Your task to perform on an android device: turn off translation in the chrome app Image 0: 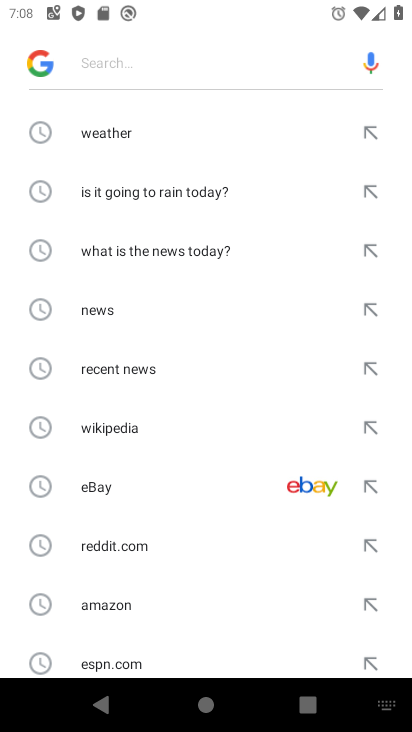
Step 0: press home button
Your task to perform on an android device: turn off translation in the chrome app Image 1: 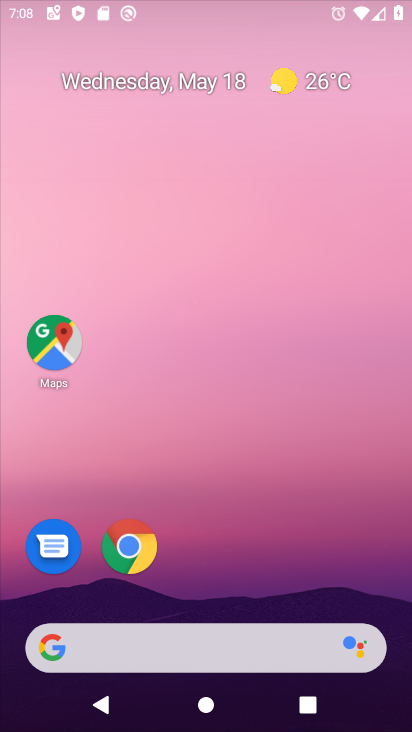
Step 1: drag from (393, 643) to (261, 46)
Your task to perform on an android device: turn off translation in the chrome app Image 2: 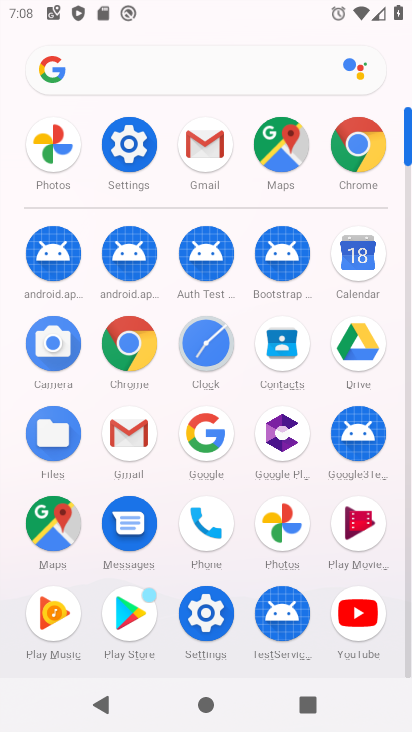
Step 2: click (368, 137)
Your task to perform on an android device: turn off translation in the chrome app Image 3: 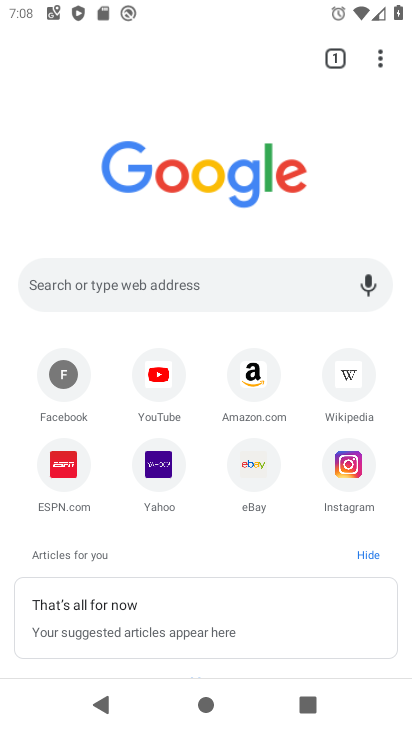
Step 3: click (385, 50)
Your task to perform on an android device: turn off translation in the chrome app Image 4: 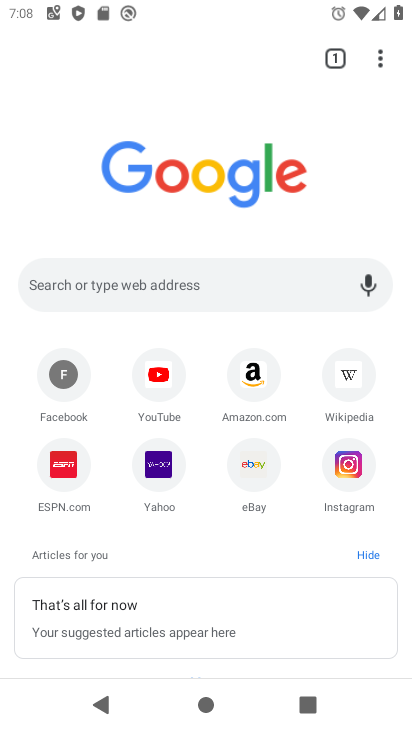
Step 4: click (377, 48)
Your task to perform on an android device: turn off translation in the chrome app Image 5: 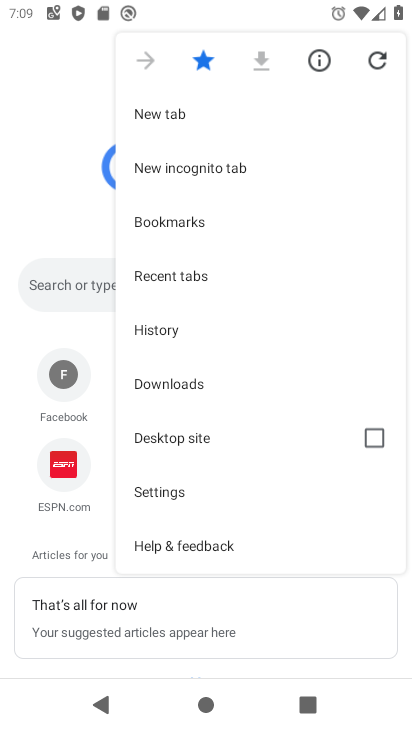
Step 5: click (250, 500)
Your task to perform on an android device: turn off translation in the chrome app Image 6: 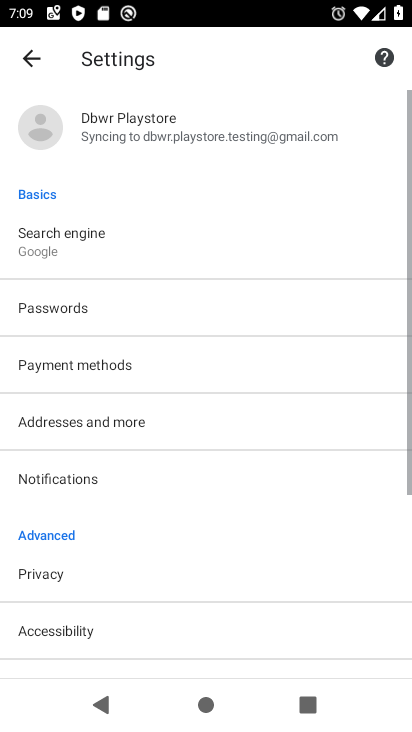
Step 6: drag from (131, 596) to (191, 68)
Your task to perform on an android device: turn off translation in the chrome app Image 7: 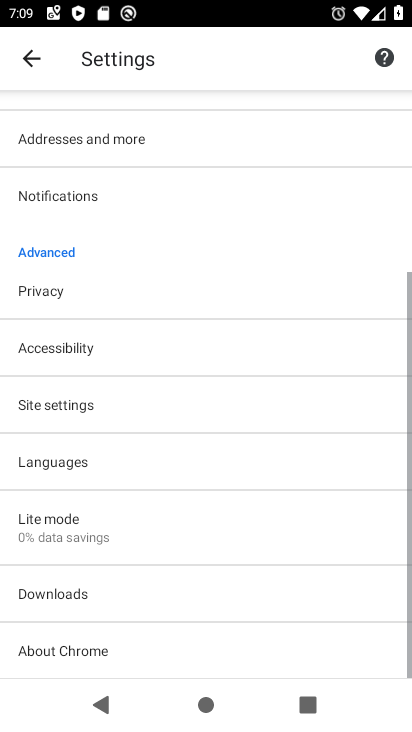
Step 7: click (94, 464)
Your task to perform on an android device: turn off translation in the chrome app Image 8: 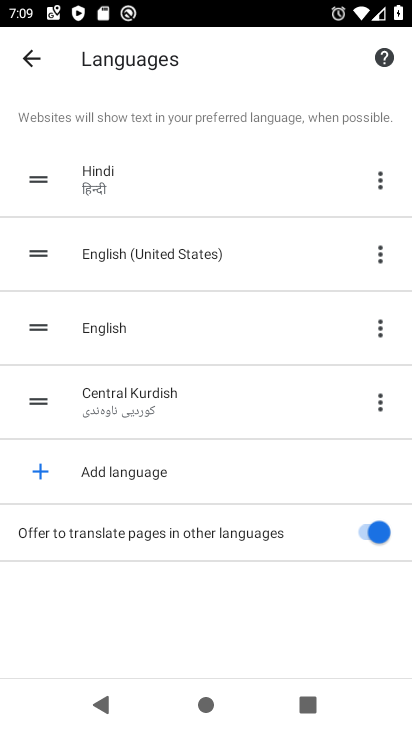
Step 8: click (304, 537)
Your task to perform on an android device: turn off translation in the chrome app Image 9: 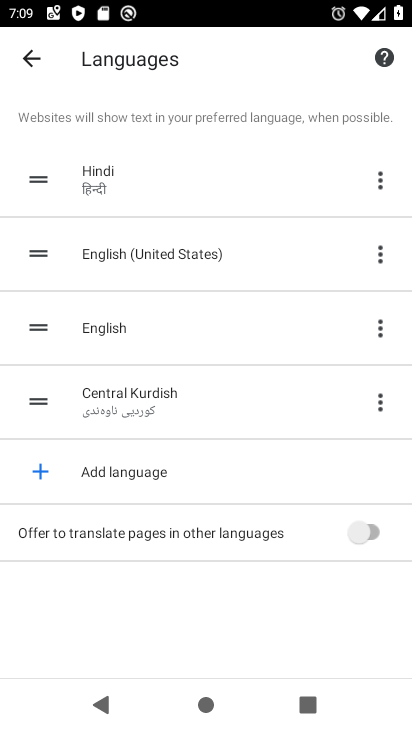
Step 9: task complete